Your task to perform on an android device: change the clock style Image 0: 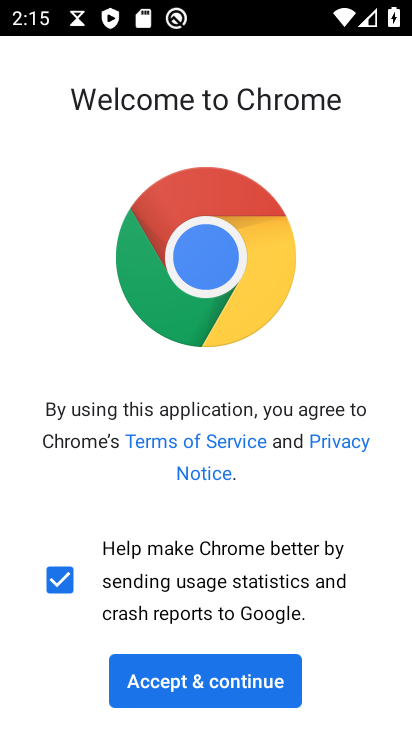
Step 0: press home button
Your task to perform on an android device: change the clock style Image 1: 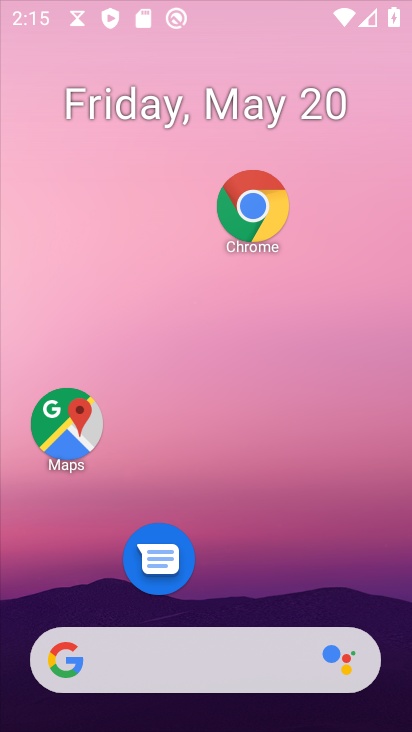
Step 1: drag from (227, 660) to (145, 4)
Your task to perform on an android device: change the clock style Image 2: 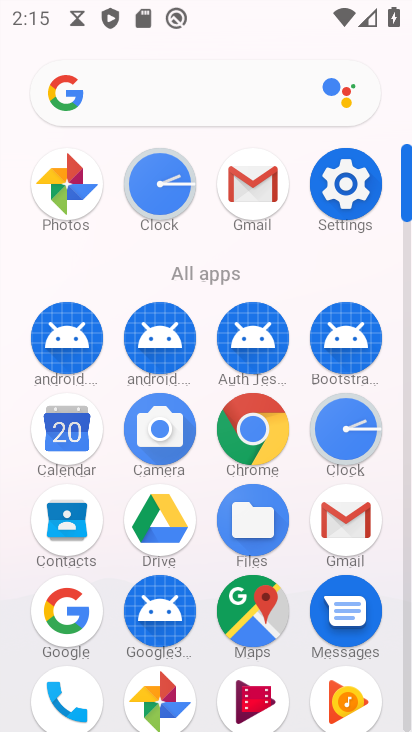
Step 2: click (353, 442)
Your task to perform on an android device: change the clock style Image 3: 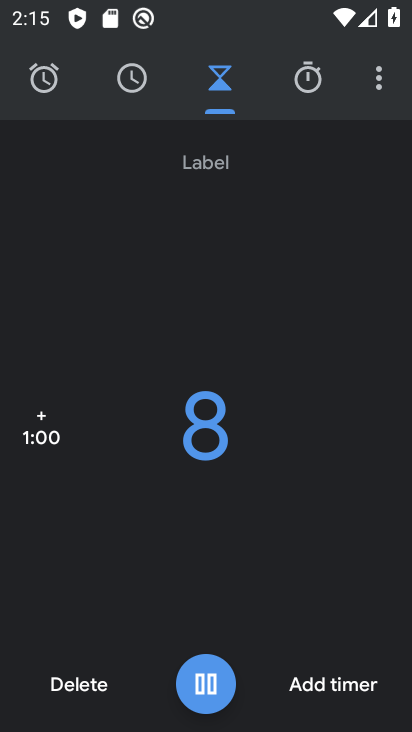
Step 3: click (369, 77)
Your task to perform on an android device: change the clock style Image 4: 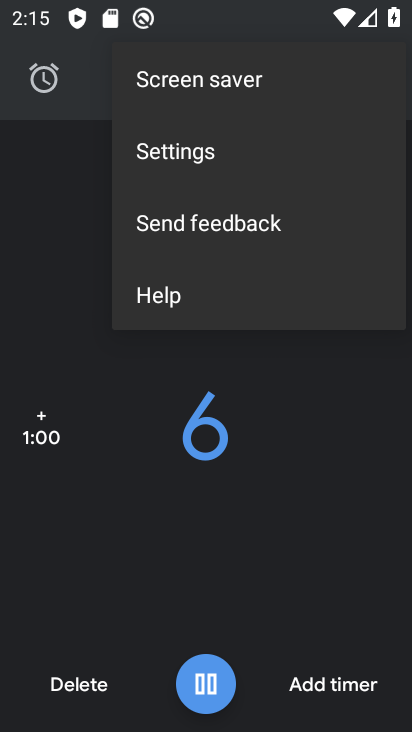
Step 4: click (193, 141)
Your task to perform on an android device: change the clock style Image 5: 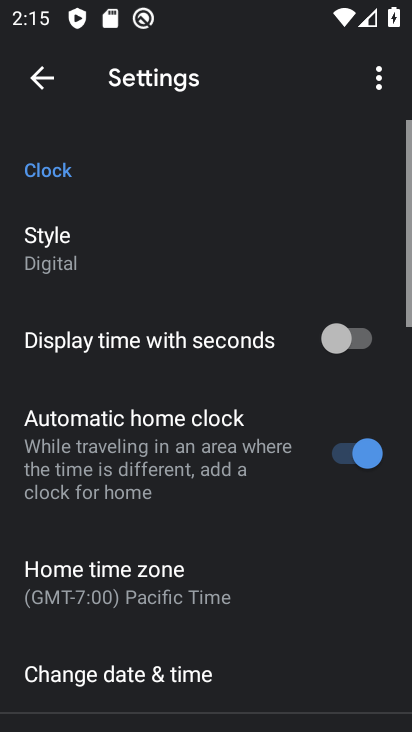
Step 5: click (116, 267)
Your task to perform on an android device: change the clock style Image 6: 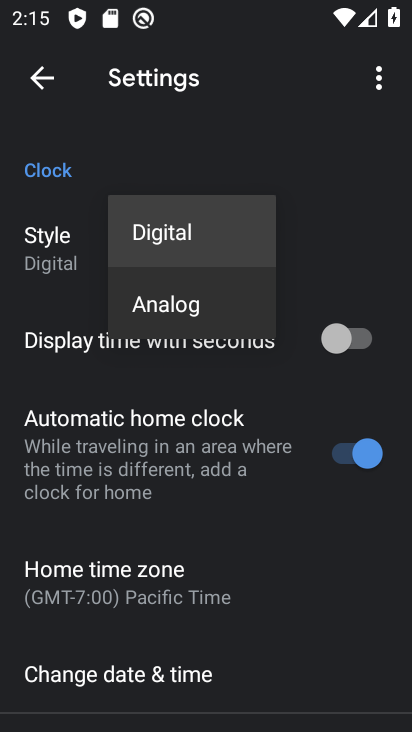
Step 6: click (139, 311)
Your task to perform on an android device: change the clock style Image 7: 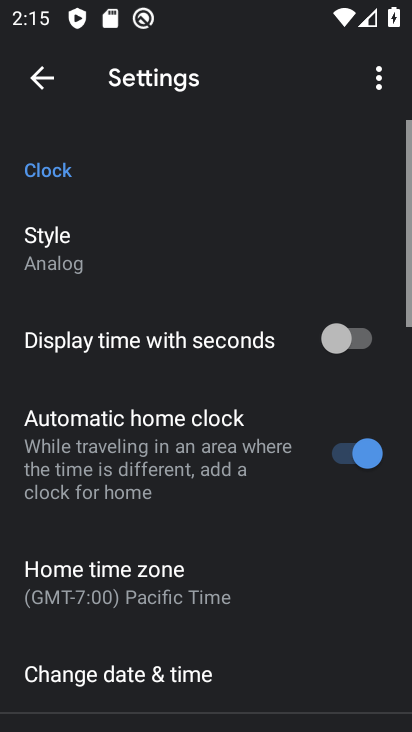
Step 7: task complete